Your task to perform on an android device: Add "acer nitro" to the cart on ebay, then select checkout. Image 0: 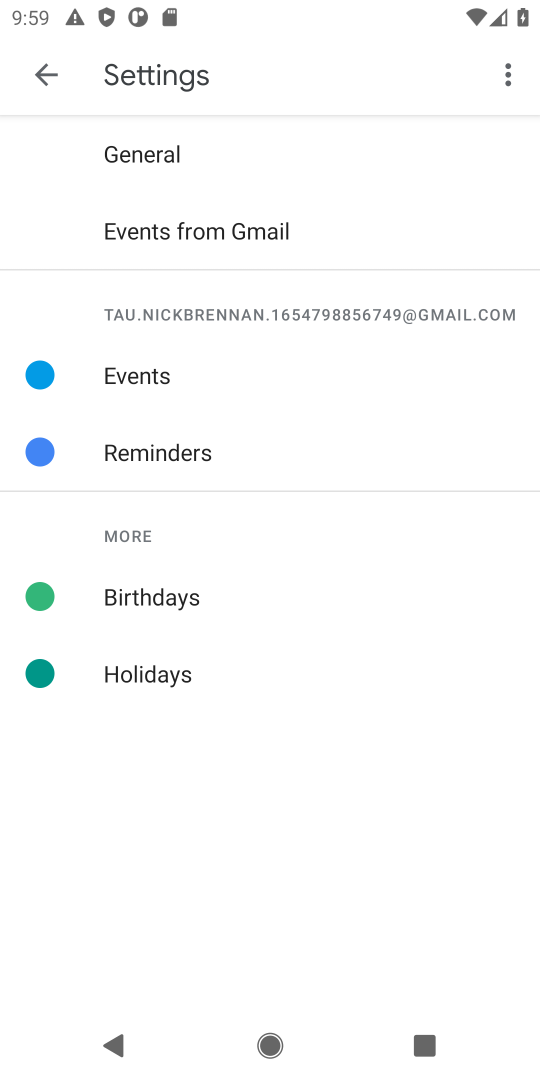
Step 0: press home button
Your task to perform on an android device: Add "acer nitro" to the cart on ebay, then select checkout. Image 1: 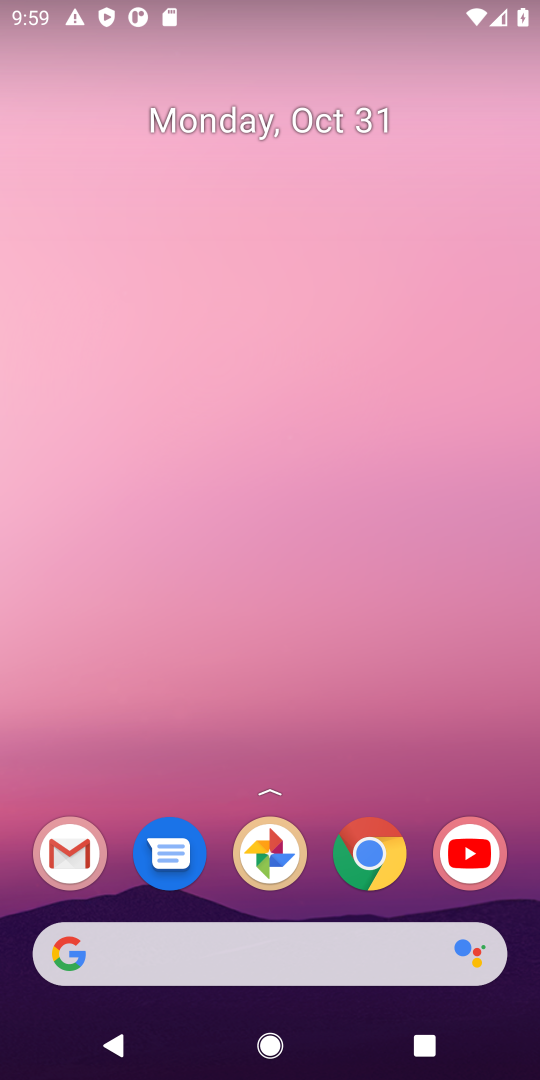
Step 1: click (300, 944)
Your task to perform on an android device: Add "acer nitro" to the cart on ebay, then select checkout. Image 2: 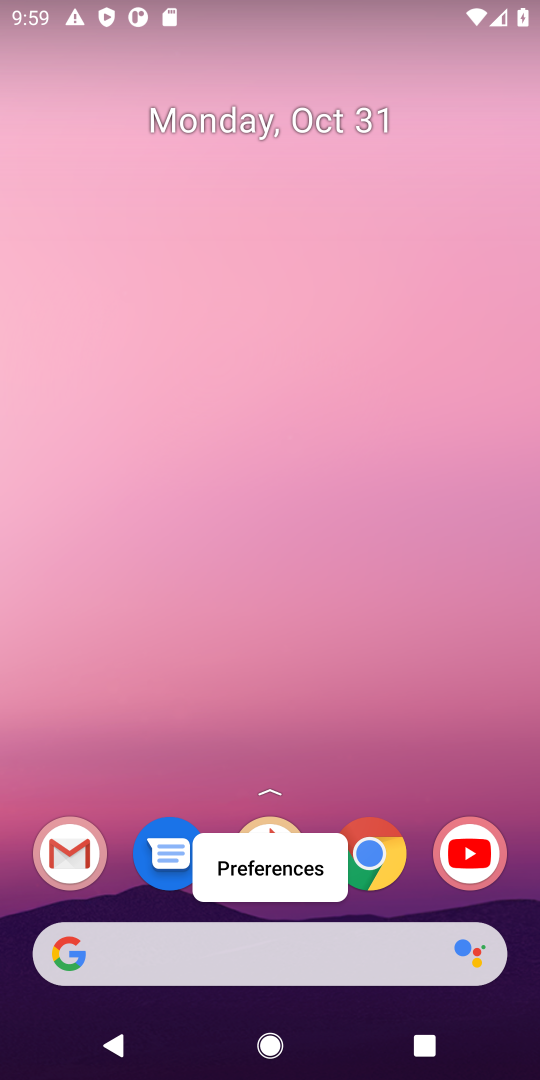
Step 2: click (300, 944)
Your task to perform on an android device: Add "acer nitro" to the cart on ebay, then select checkout. Image 3: 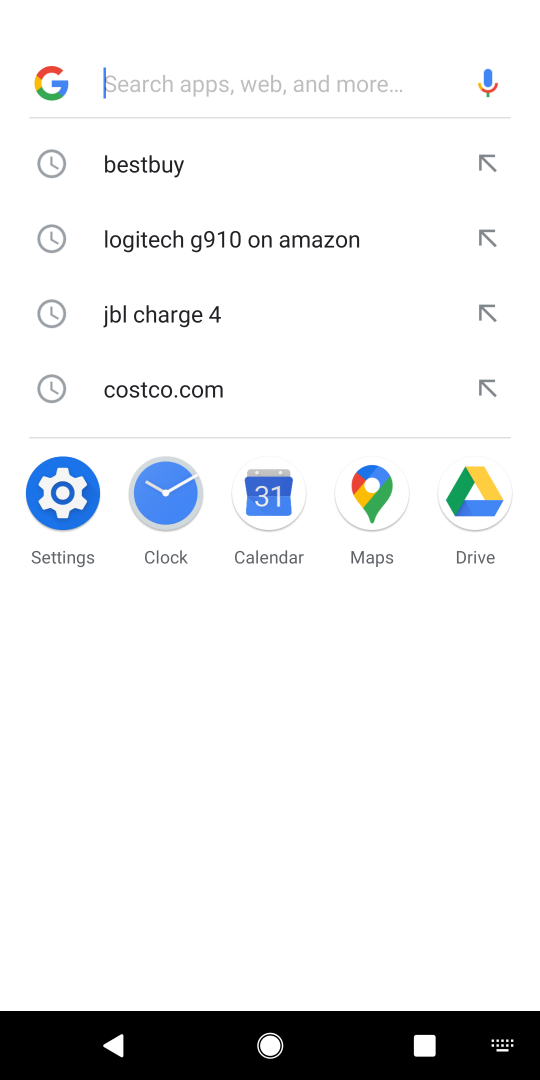
Step 3: type "ebay"
Your task to perform on an android device: Add "acer nitro" to the cart on ebay, then select checkout. Image 4: 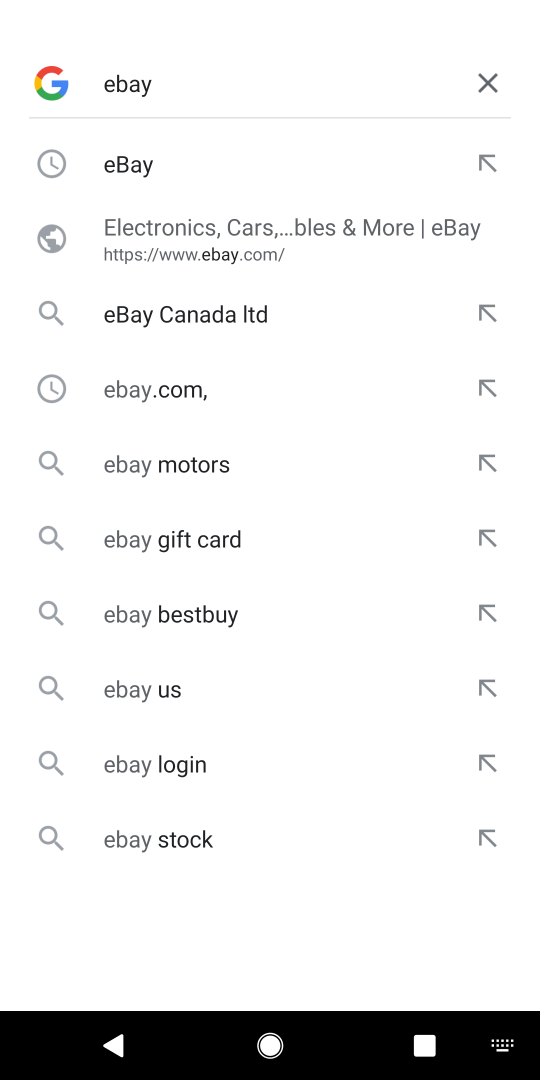
Step 4: type ""
Your task to perform on an android device: Add "acer nitro" to the cart on ebay, then select checkout. Image 5: 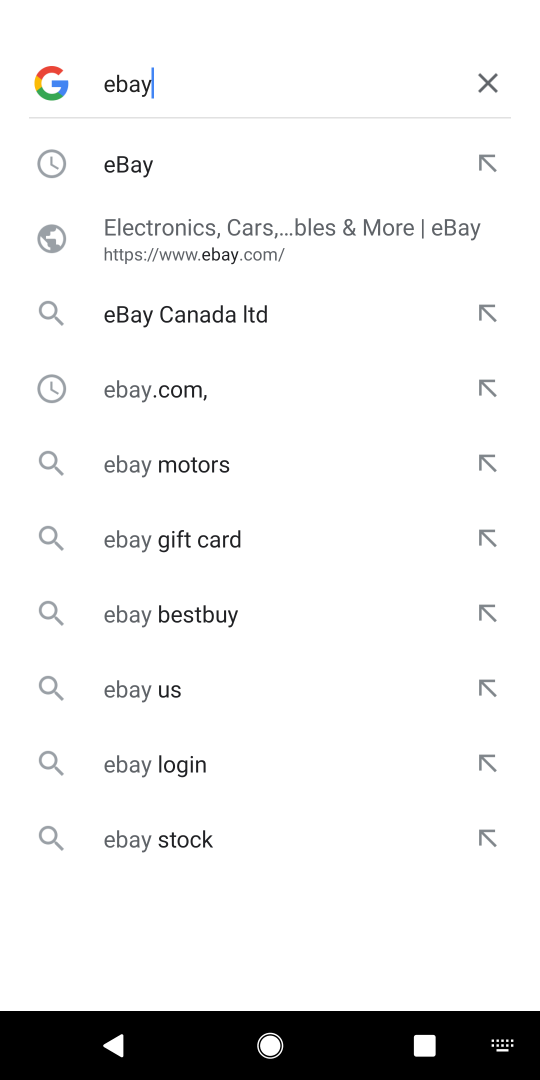
Step 5: press enter
Your task to perform on an android device: Add "acer nitro" to the cart on ebay, then select checkout. Image 6: 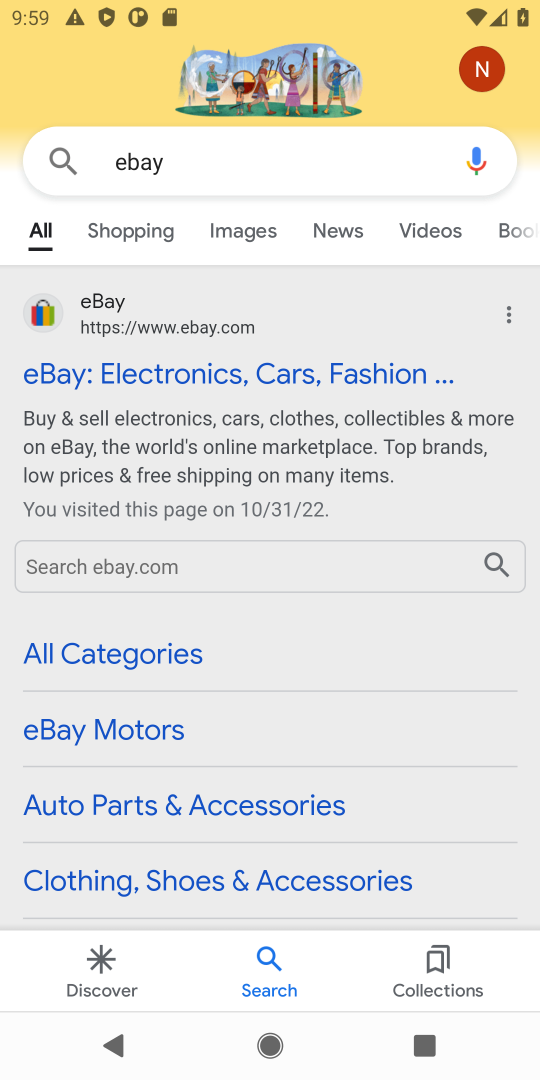
Step 6: click (226, 383)
Your task to perform on an android device: Add "acer nitro" to the cart on ebay, then select checkout. Image 7: 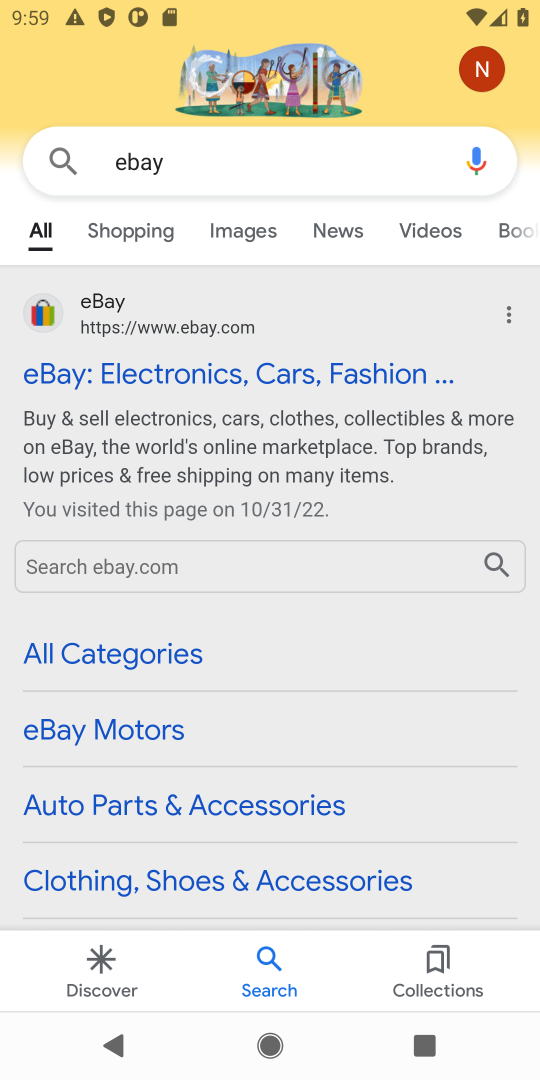
Step 7: click (222, 374)
Your task to perform on an android device: Add "acer nitro" to the cart on ebay, then select checkout. Image 8: 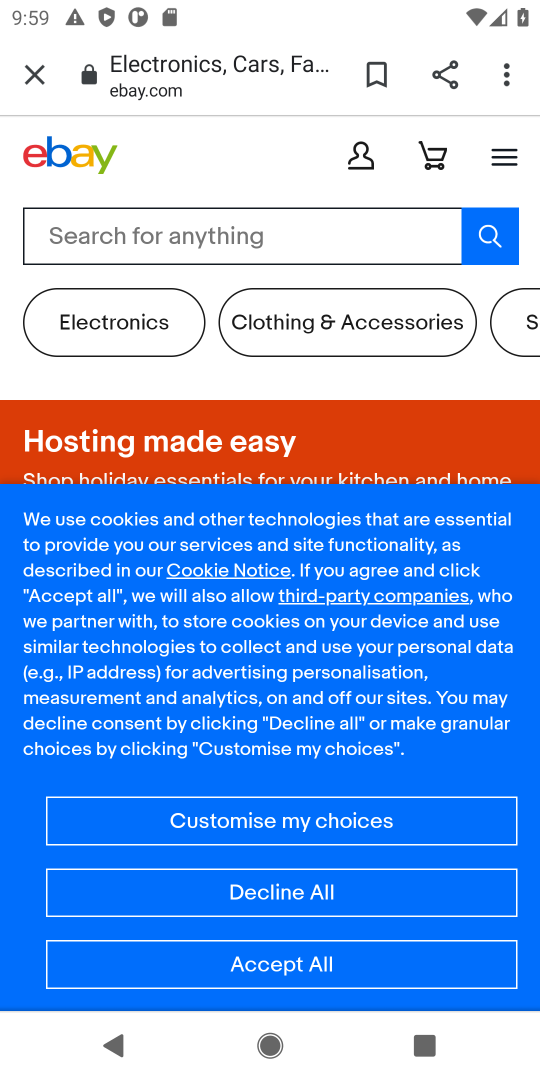
Step 8: click (296, 968)
Your task to perform on an android device: Add "acer nitro" to the cart on ebay, then select checkout. Image 9: 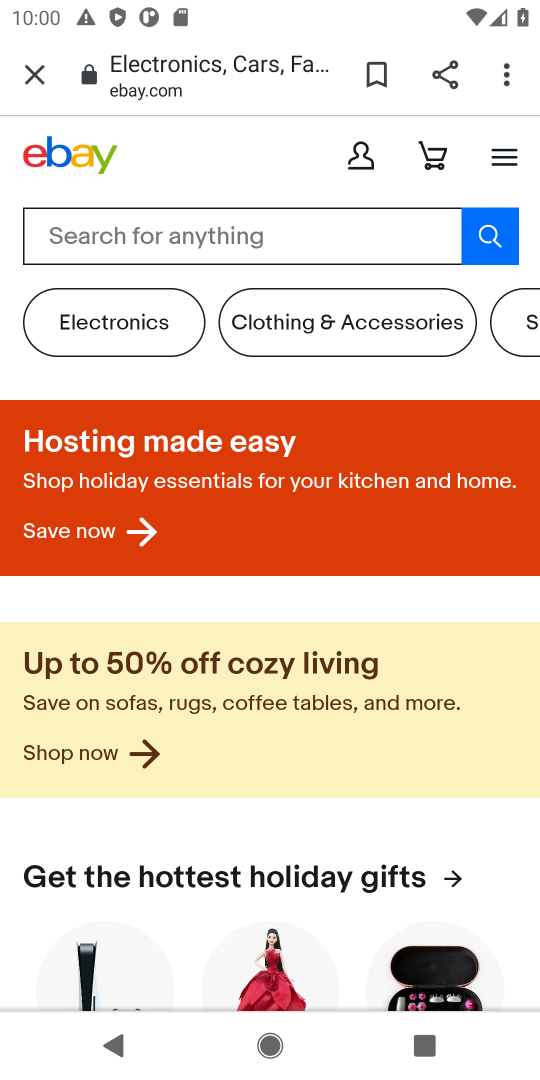
Step 9: type "acer nitro"
Your task to perform on an android device: Add "acer nitro" to the cart on ebay, then select checkout. Image 10: 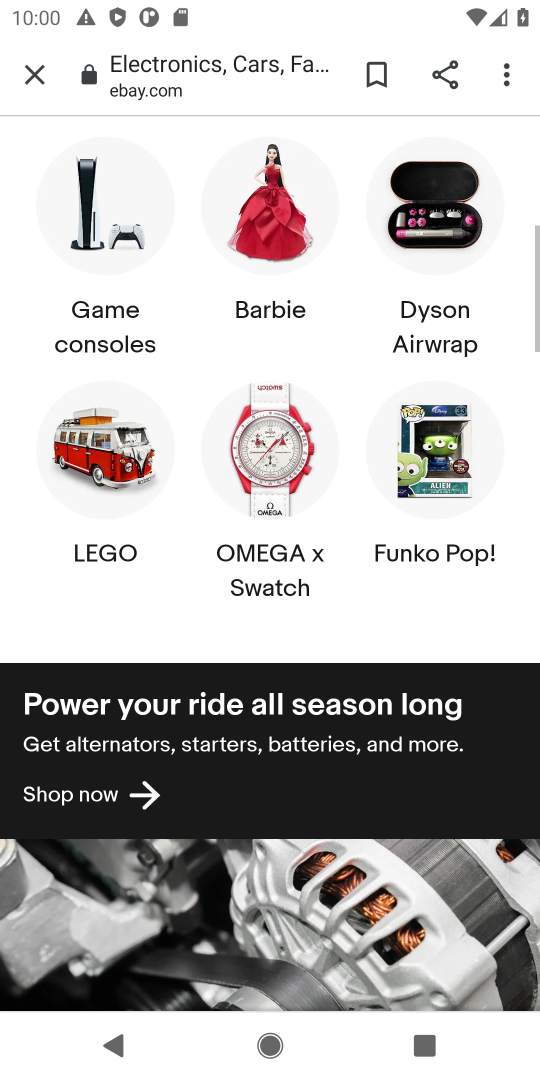
Step 10: type ""
Your task to perform on an android device: Add "acer nitro" to the cart on ebay, then select checkout. Image 11: 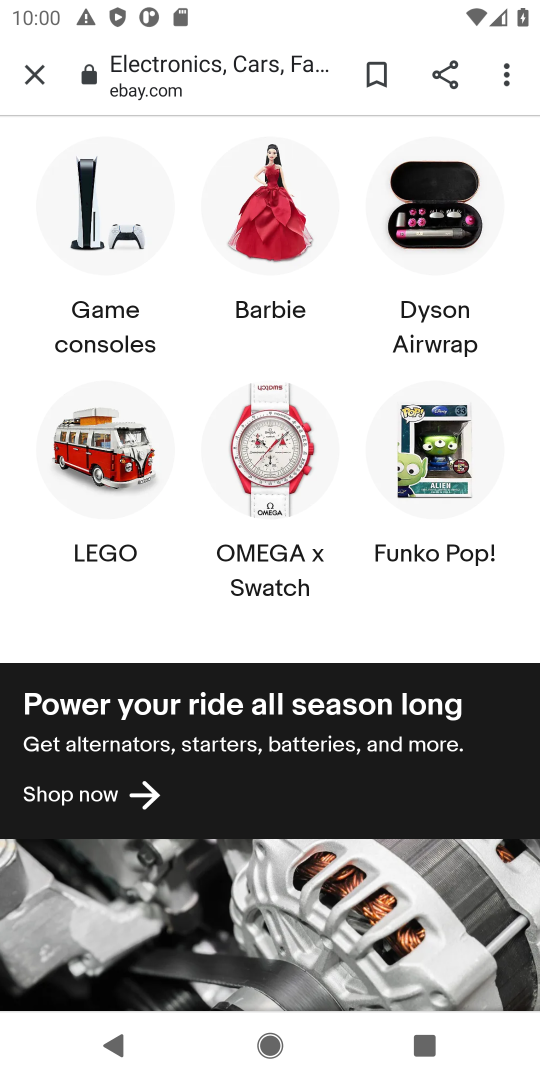
Step 11: drag from (350, 218) to (428, 1062)
Your task to perform on an android device: Add "acer nitro" to the cart on ebay, then select checkout. Image 12: 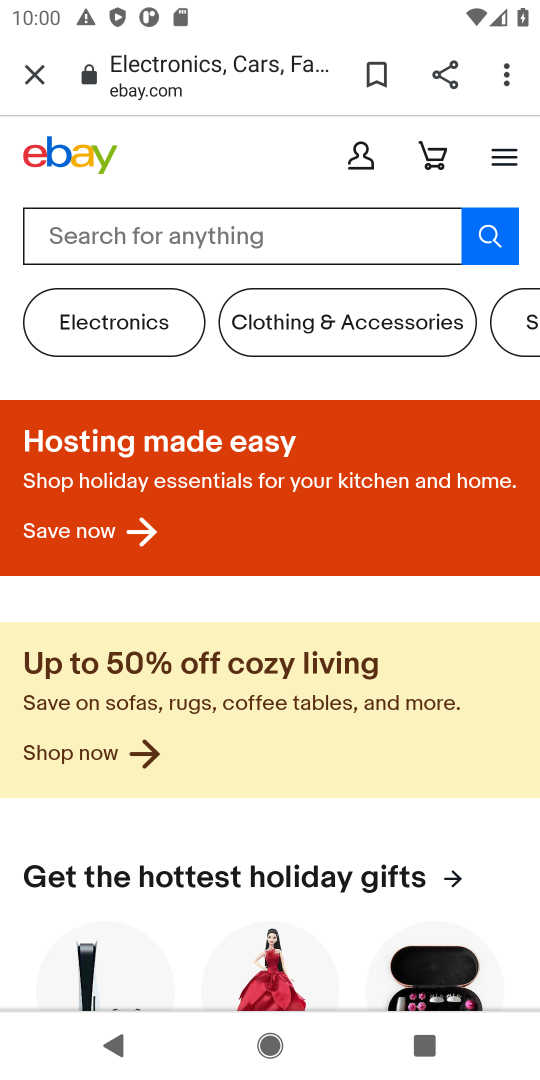
Step 12: click (169, 233)
Your task to perform on an android device: Add "acer nitro" to the cart on ebay, then select checkout. Image 13: 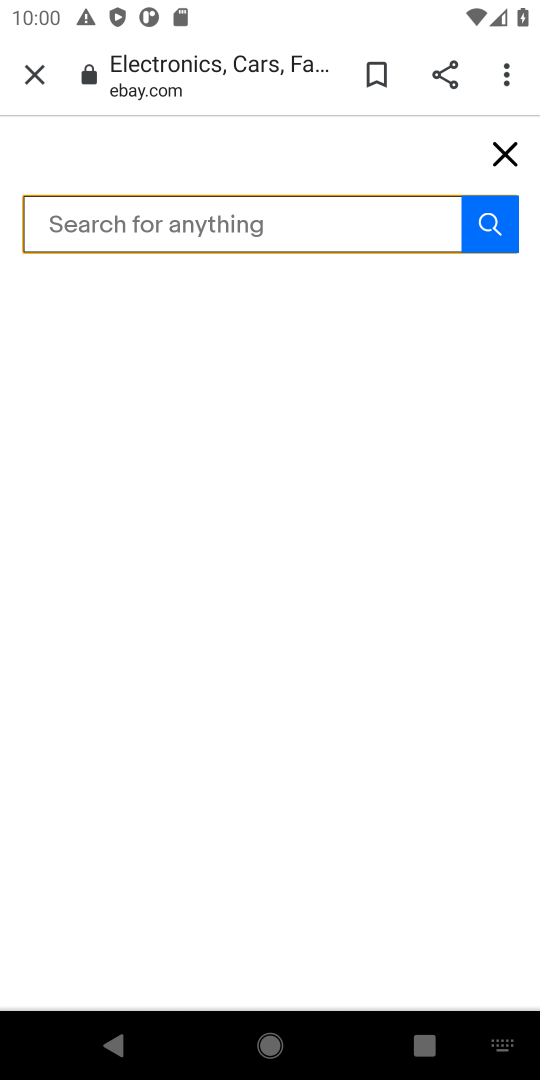
Step 13: click (169, 233)
Your task to perform on an android device: Add "acer nitro" to the cart on ebay, then select checkout. Image 14: 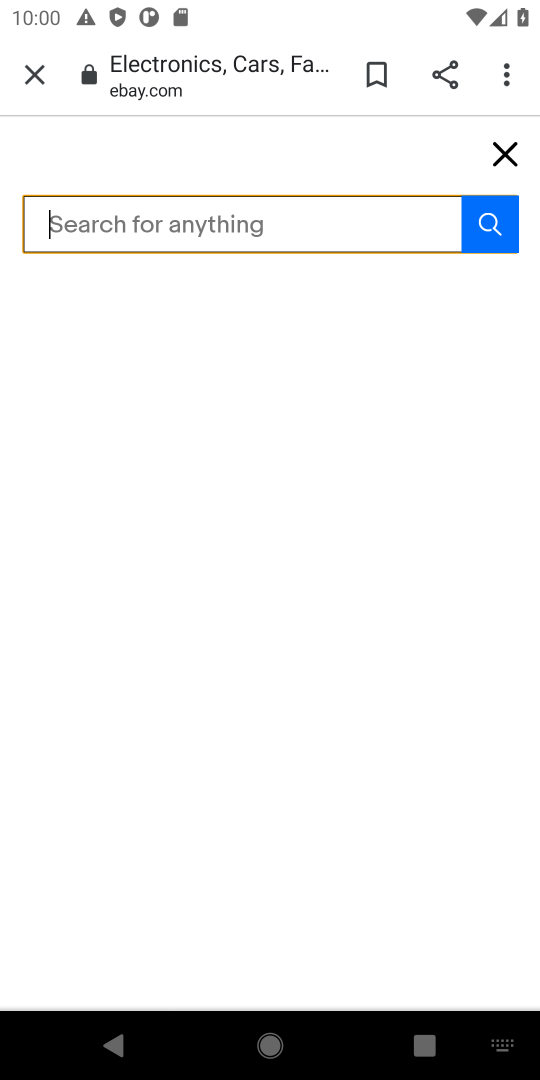
Step 14: type "acer nitro"
Your task to perform on an android device: Add "acer nitro" to the cart on ebay, then select checkout. Image 15: 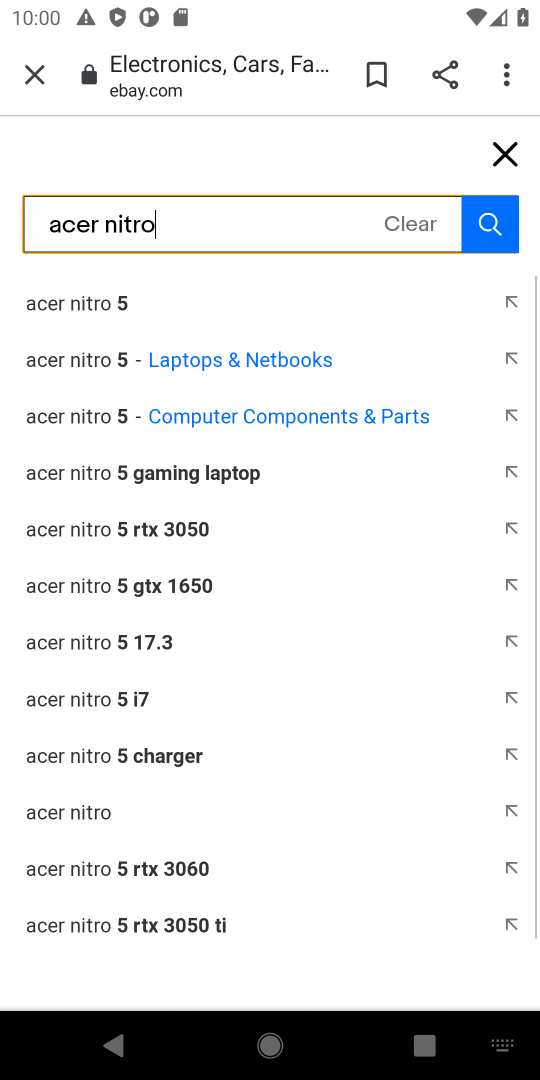
Step 15: type ""
Your task to perform on an android device: Add "acer nitro" to the cart on ebay, then select checkout. Image 16: 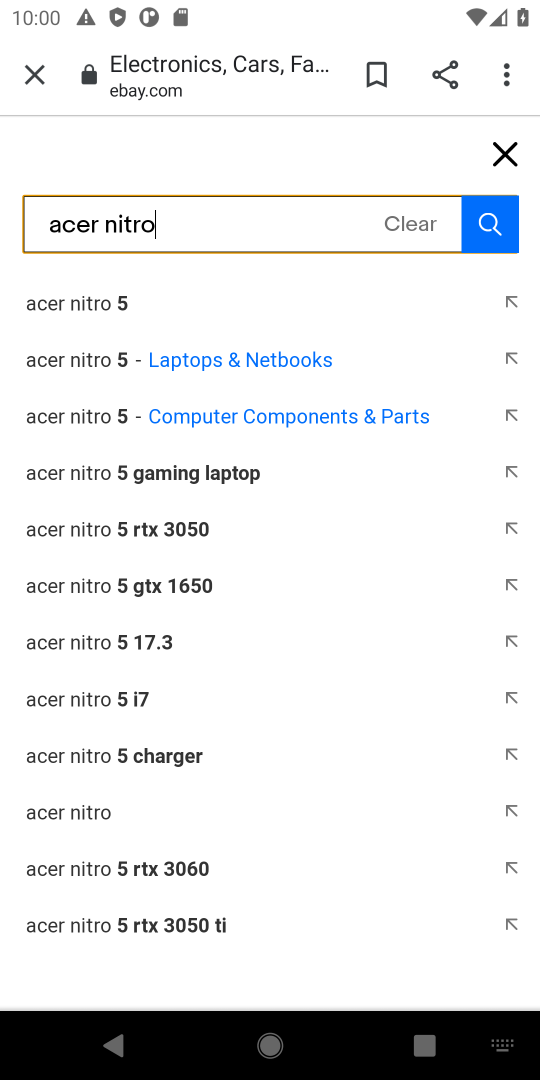
Step 16: press enter
Your task to perform on an android device: Add "acer nitro" to the cart on ebay, then select checkout. Image 17: 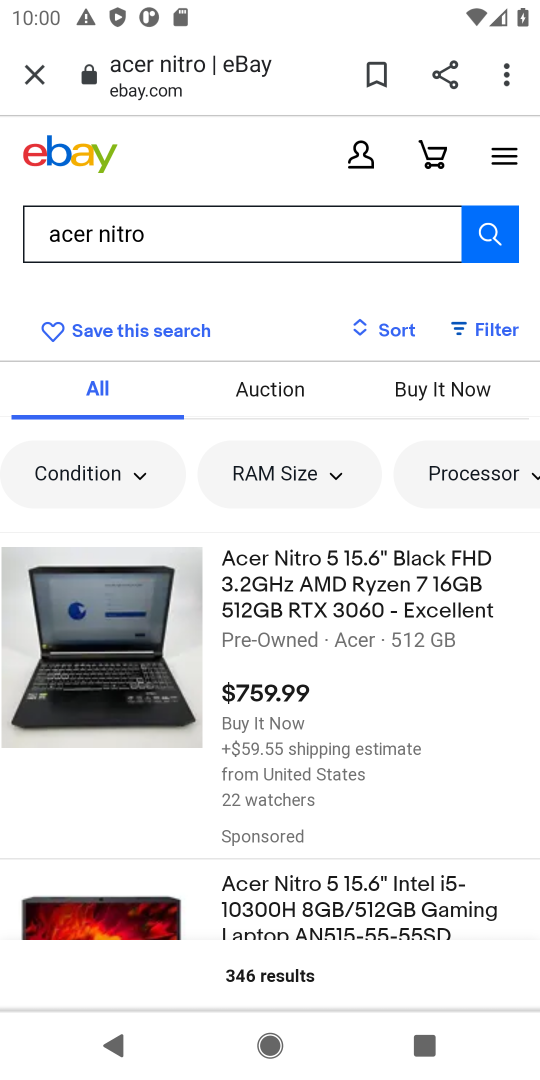
Step 17: press enter
Your task to perform on an android device: Add "acer nitro" to the cart on ebay, then select checkout. Image 18: 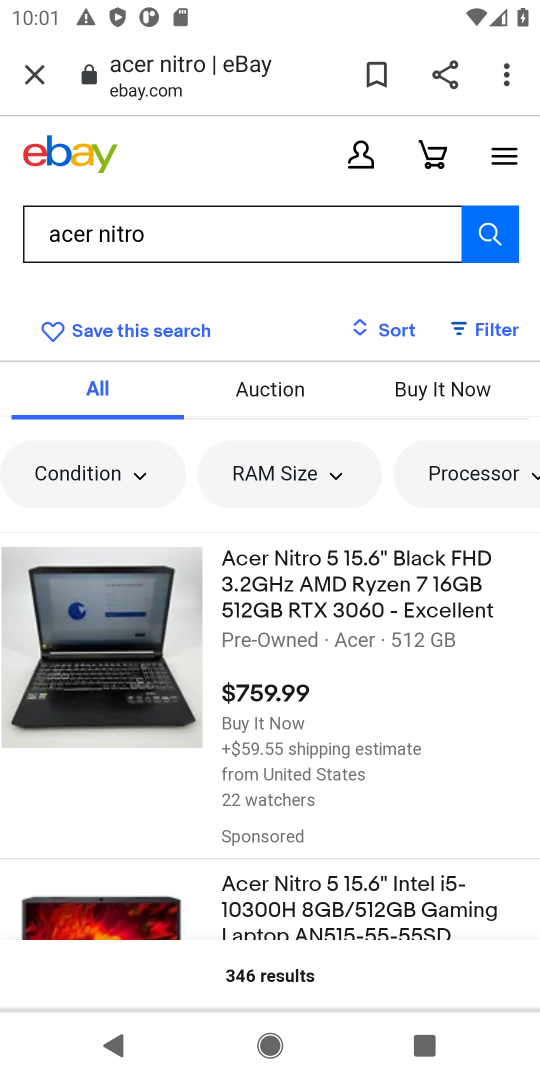
Step 18: click (405, 602)
Your task to perform on an android device: Add "acer nitro" to the cart on ebay, then select checkout. Image 19: 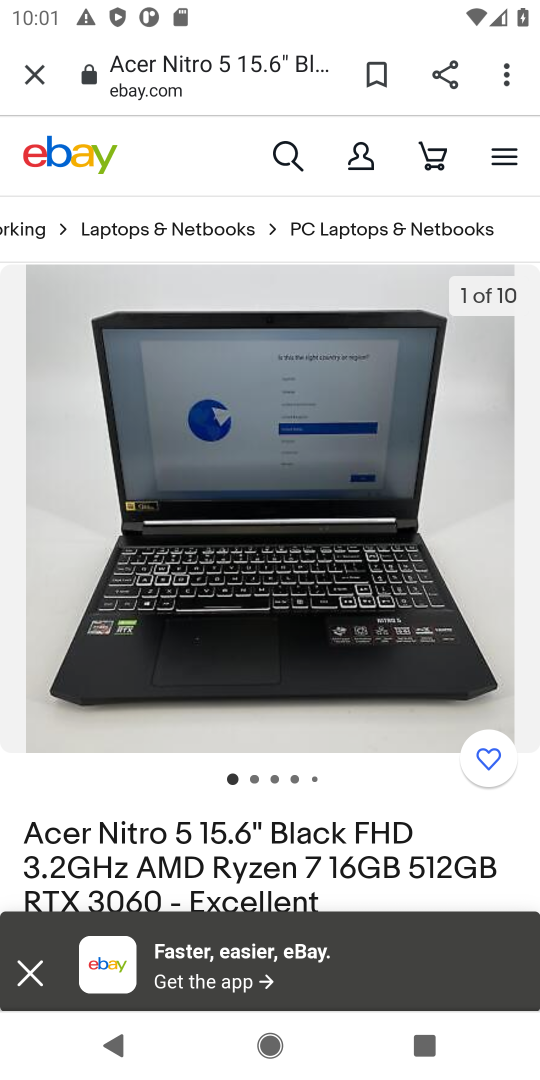
Step 19: drag from (210, 789) to (177, 399)
Your task to perform on an android device: Add "acer nitro" to the cart on ebay, then select checkout. Image 20: 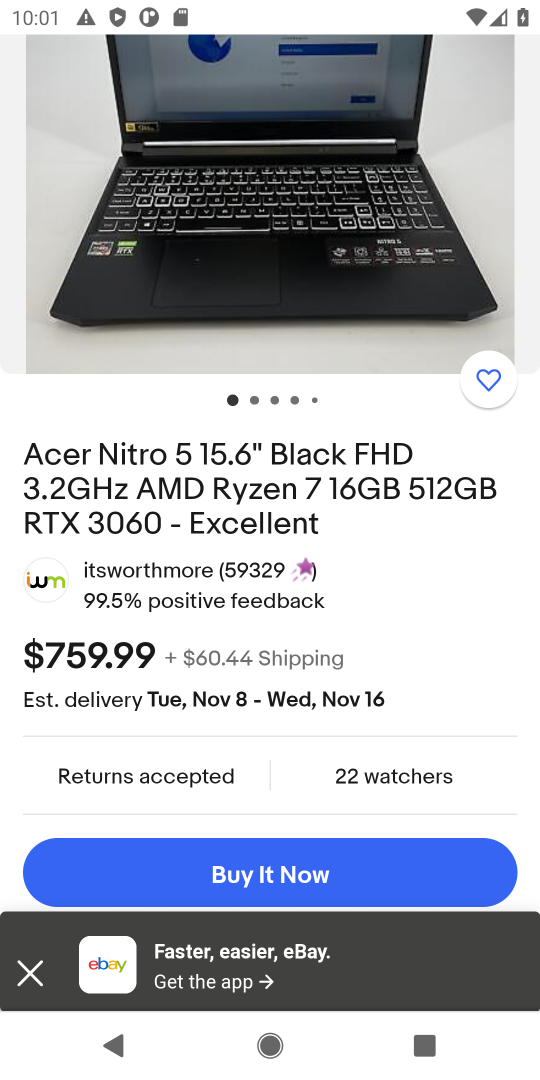
Step 20: drag from (307, 743) to (277, 495)
Your task to perform on an android device: Add "acer nitro" to the cart on ebay, then select checkout. Image 21: 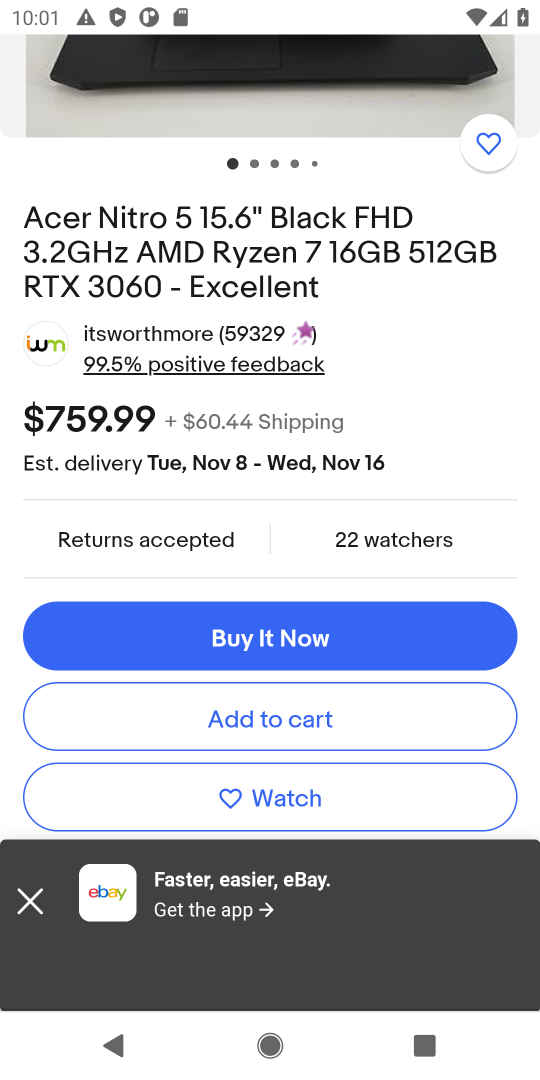
Step 21: click (295, 731)
Your task to perform on an android device: Add "acer nitro" to the cart on ebay, then select checkout. Image 22: 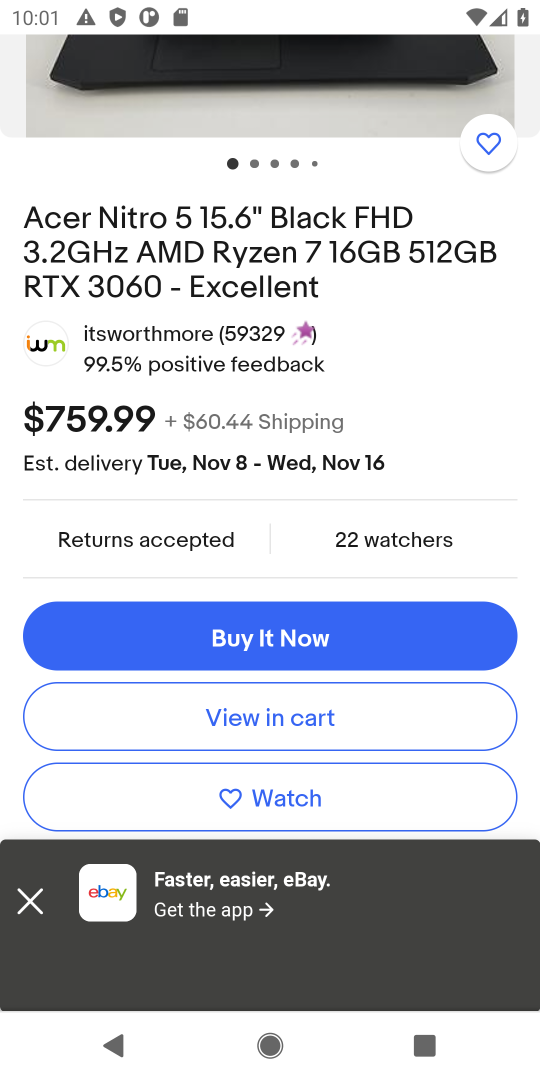
Step 22: click (303, 723)
Your task to perform on an android device: Add "acer nitro" to the cart on ebay, then select checkout. Image 23: 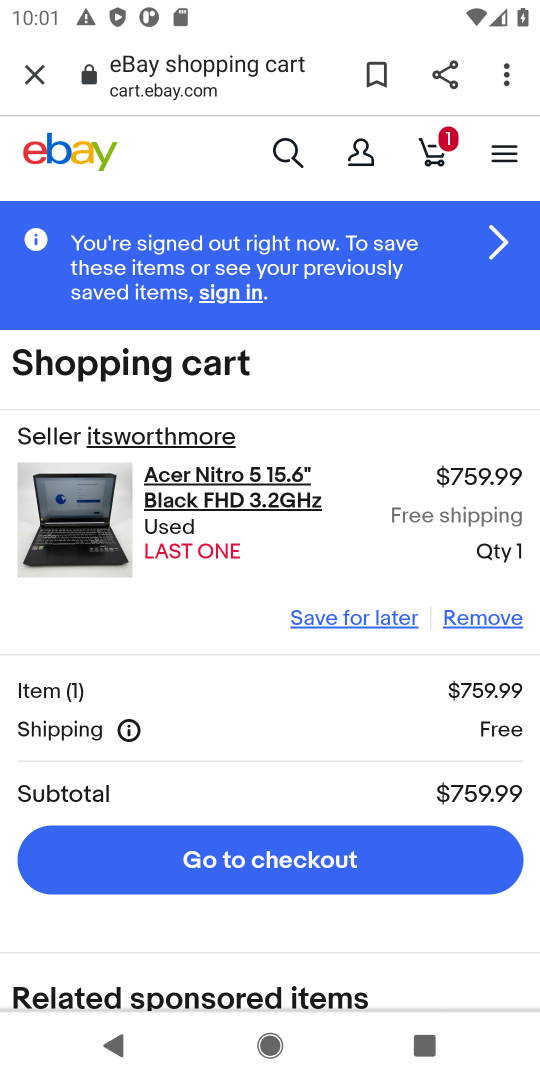
Step 23: click (284, 858)
Your task to perform on an android device: Add "acer nitro" to the cart on ebay, then select checkout. Image 24: 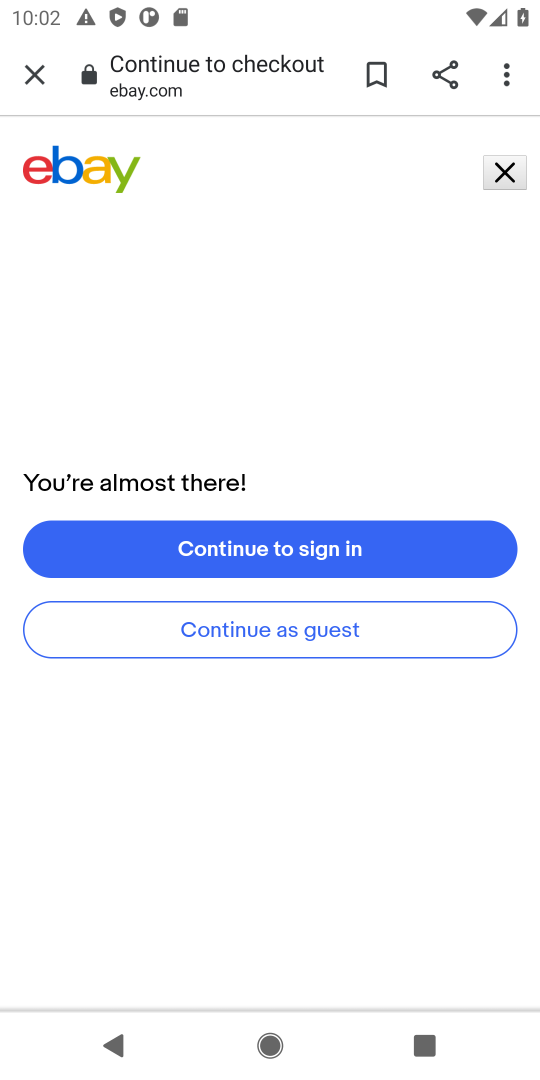
Step 24: task complete